Your task to perform on an android device: see tabs open on other devices in the chrome app Image 0: 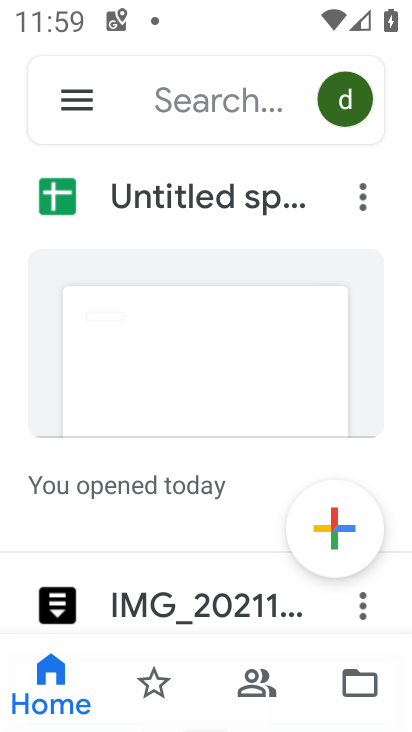
Step 0: press home button
Your task to perform on an android device: see tabs open on other devices in the chrome app Image 1: 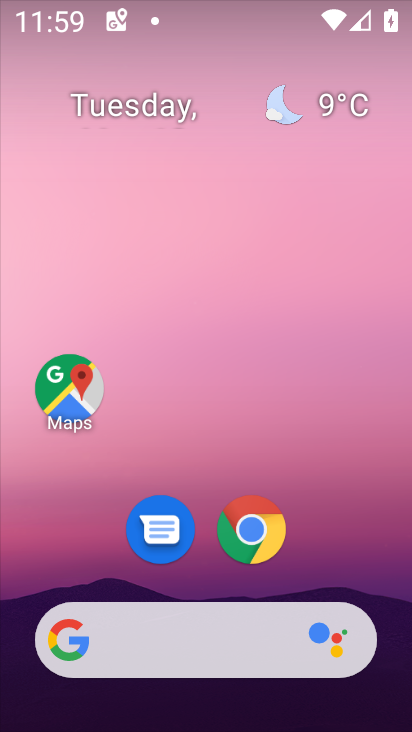
Step 1: click (260, 533)
Your task to perform on an android device: see tabs open on other devices in the chrome app Image 2: 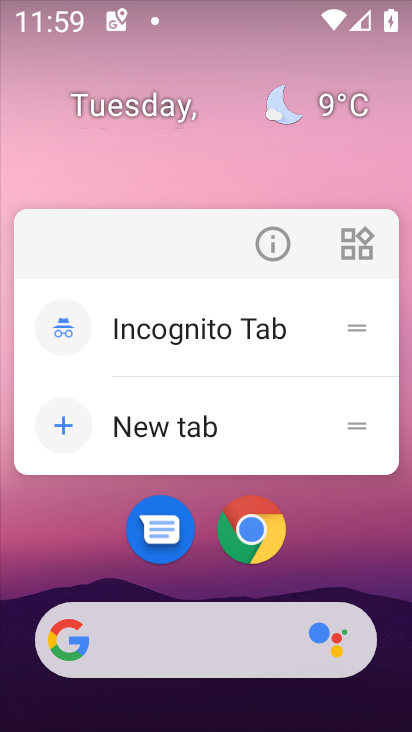
Step 2: click (263, 539)
Your task to perform on an android device: see tabs open on other devices in the chrome app Image 3: 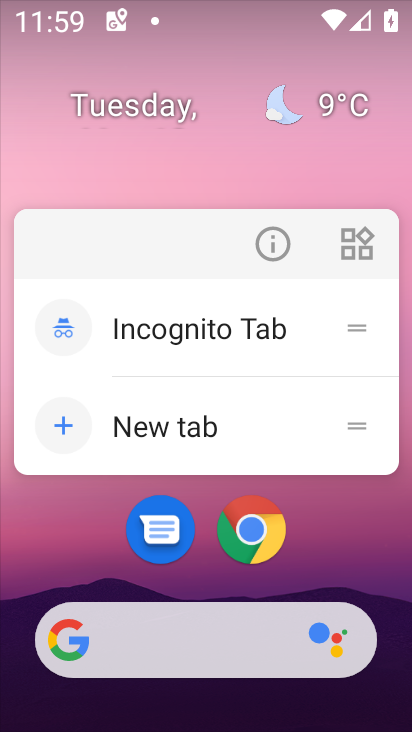
Step 3: click (263, 541)
Your task to perform on an android device: see tabs open on other devices in the chrome app Image 4: 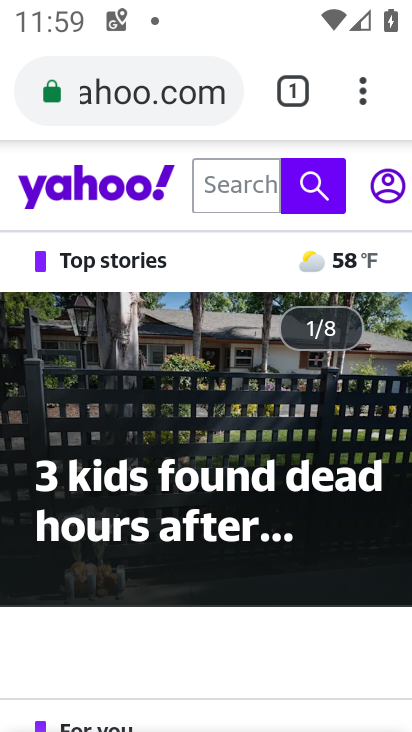
Step 4: drag from (375, 95) to (154, 433)
Your task to perform on an android device: see tabs open on other devices in the chrome app Image 5: 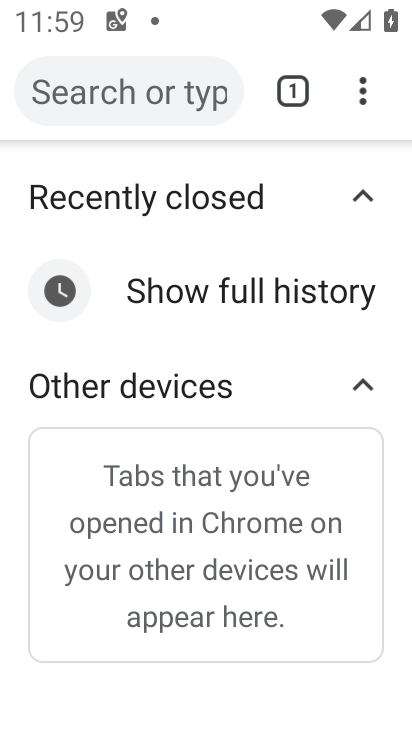
Step 5: click (295, 309)
Your task to perform on an android device: see tabs open on other devices in the chrome app Image 6: 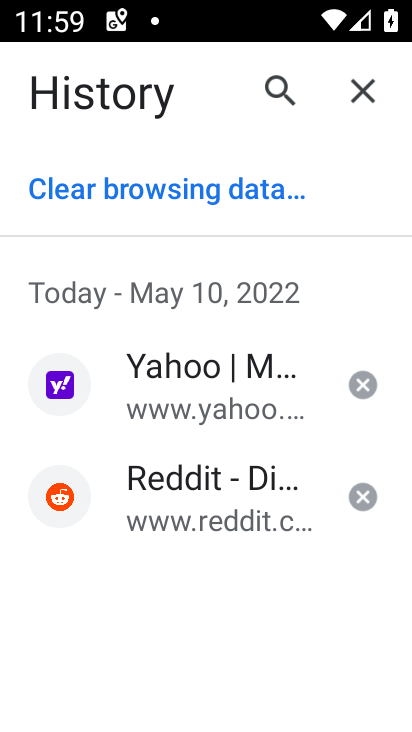
Step 6: task complete